Your task to perform on an android device: refresh tabs in the chrome app Image 0: 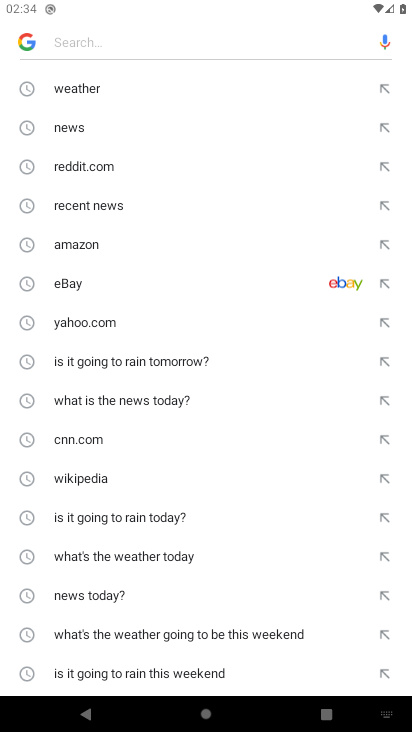
Step 0: press home button
Your task to perform on an android device: refresh tabs in the chrome app Image 1: 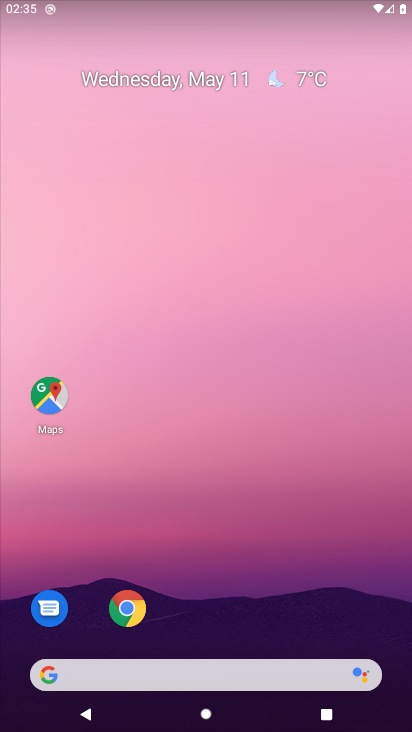
Step 1: click (125, 618)
Your task to perform on an android device: refresh tabs in the chrome app Image 2: 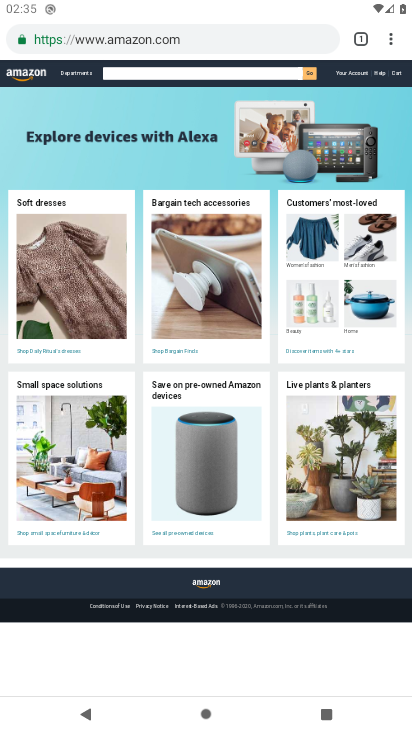
Step 2: click (391, 35)
Your task to perform on an android device: refresh tabs in the chrome app Image 3: 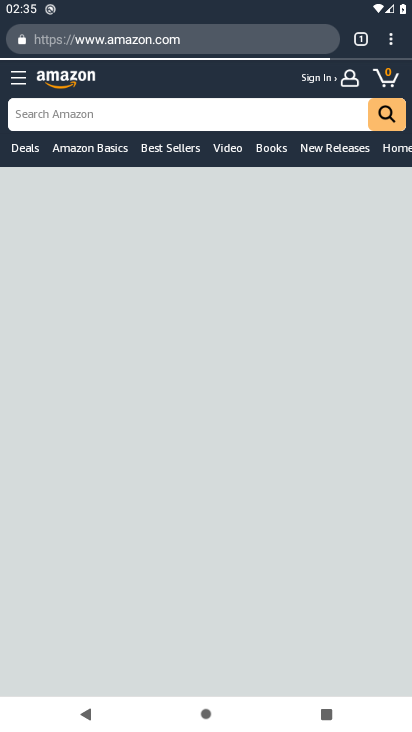
Step 3: click (391, 35)
Your task to perform on an android device: refresh tabs in the chrome app Image 4: 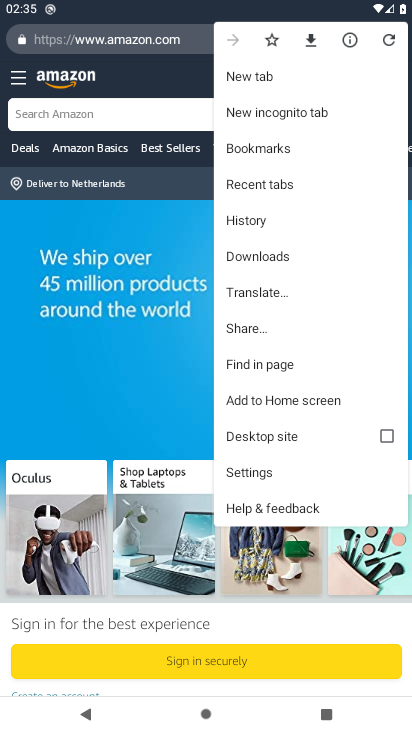
Step 4: click (391, 35)
Your task to perform on an android device: refresh tabs in the chrome app Image 5: 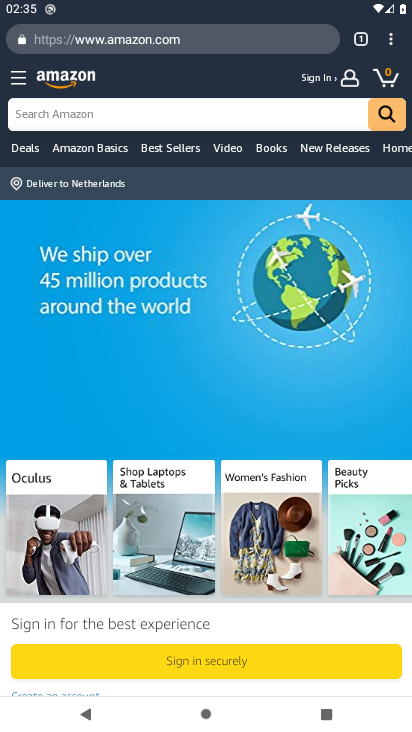
Step 5: task complete